Your task to perform on an android device: find which apps use the phone's location Image 0: 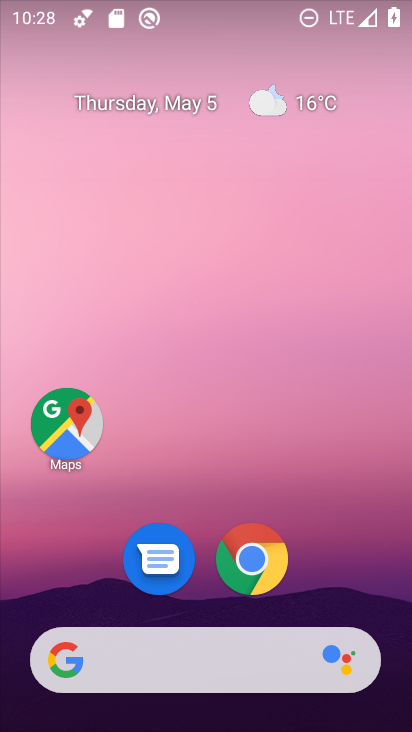
Step 0: drag from (394, 623) to (329, 26)
Your task to perform on an android device: find which apps use the phone's location Image 1: 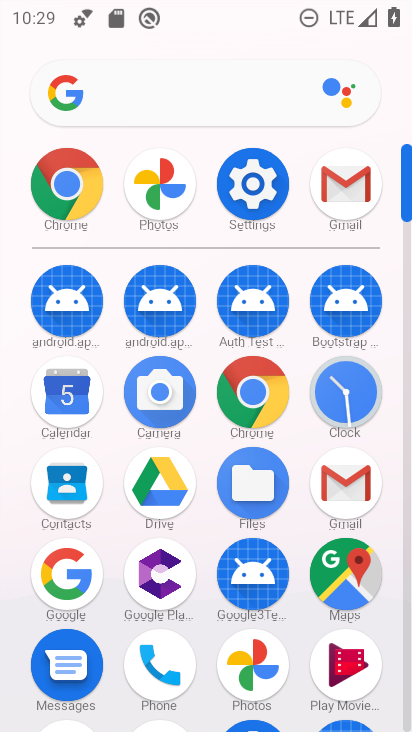
Step 1: click (239, 216)
Your task to perform on an android device: find which apps use the phone's location Image 2: 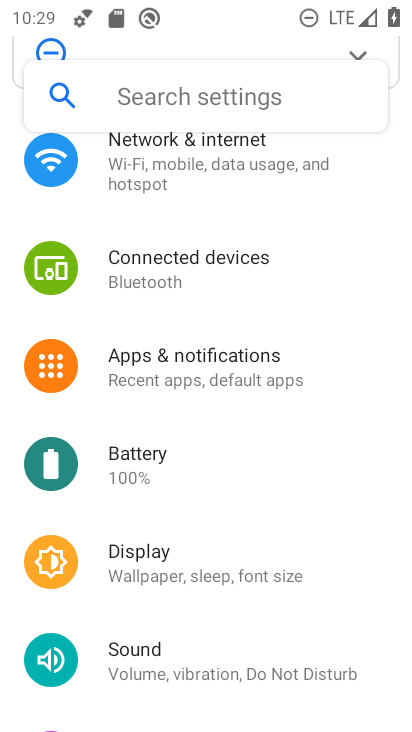
Step 2: drag from (223, 653) to (274, 183)
Your task to perform on an android device: find which apps use the phone's location Image 3: 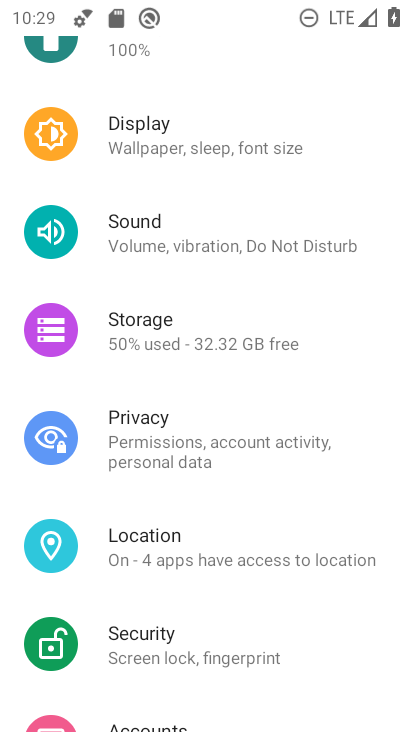
Step 3: click (225, 557)
Your task to perform on an android device: find which apps use the phone's location Image 4: 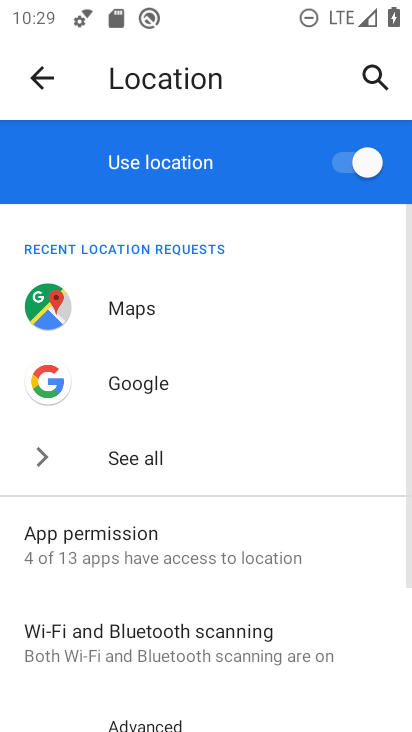
Step 4: drag from (182, 639) to (223, 444)
Your task to perform on an android device: find which apps use the phone's location Image 5: 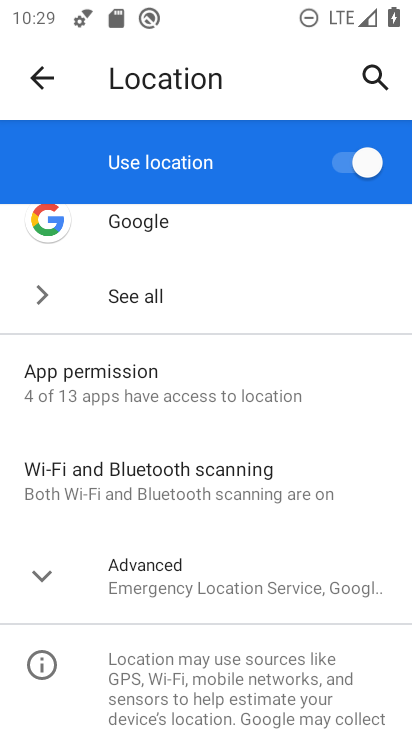
Step 5: click (127, 402)
Your task to perform on an android device: find which apps use the phone's location Image 6: 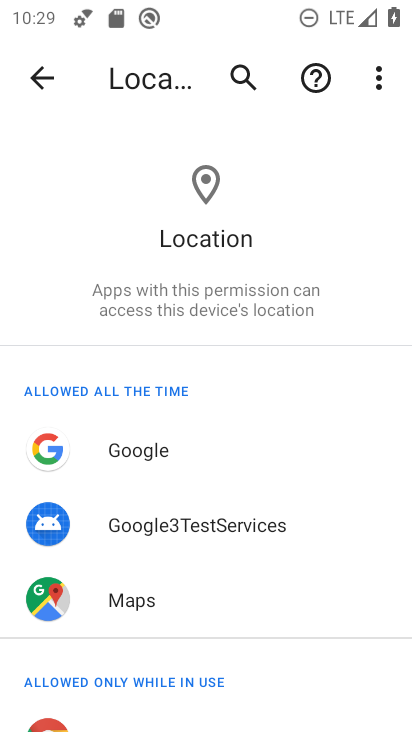
Step 6: drag from (120, 659) to (195, 200)
Your task to perform on an android device: find which apps use the phone's location Image 7: 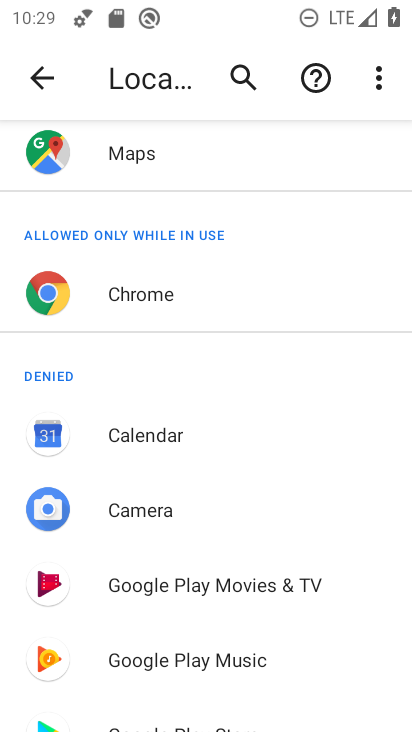
Step 7: drag from (149, 620) to (188, 175)
Your task to perform on an android device: find which apps use the phone's location Image 8: 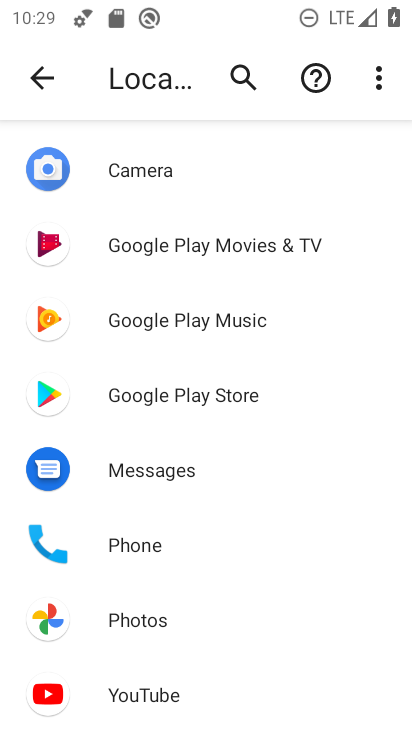
Step 8: click (95, 559)
Your task to perform on an android device: find which apps use the phone's location Image 9: 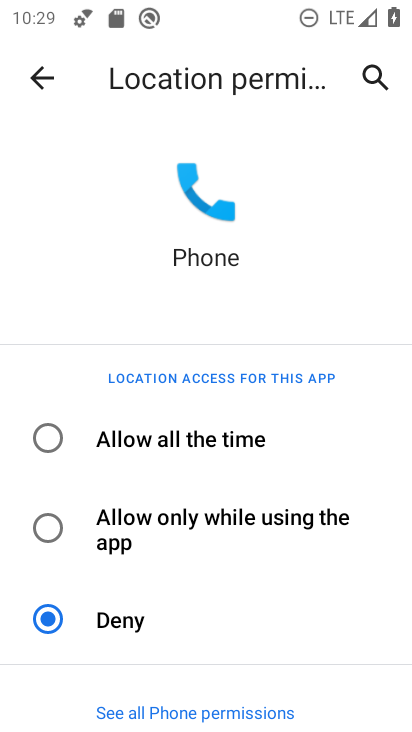
Step 9: click (79, 450)
Your task to perform on an android device: find which apps use the phone's location Image 10: 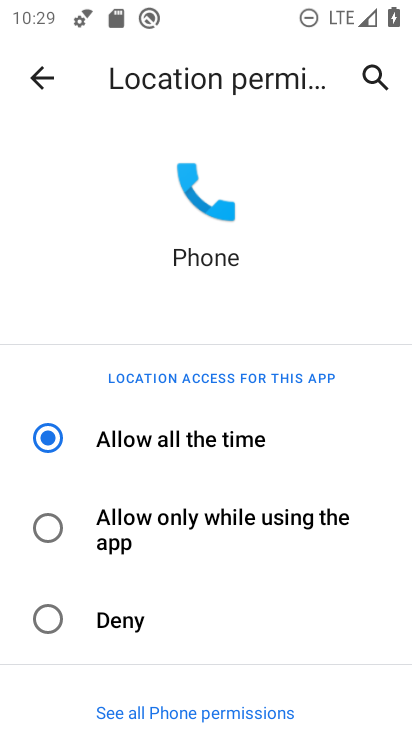
Step 10: task complete